Your task to perform on an android device: open the mobile data screen to see how much data has been used Image 0: 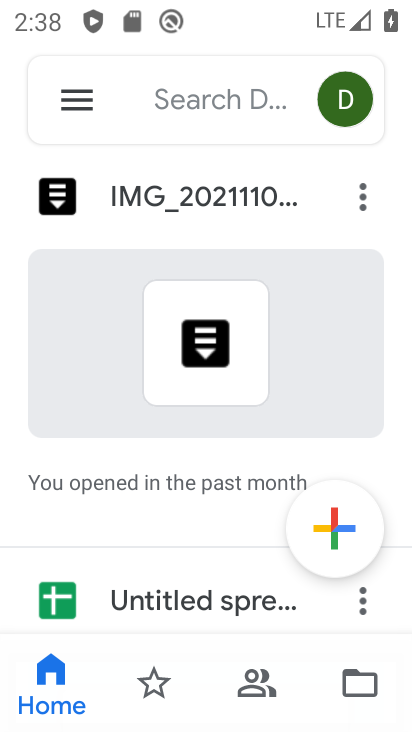
Step 0: press home button
Your task to perform on an android device: open the mobile data screen to see how much data has been used Image 1: 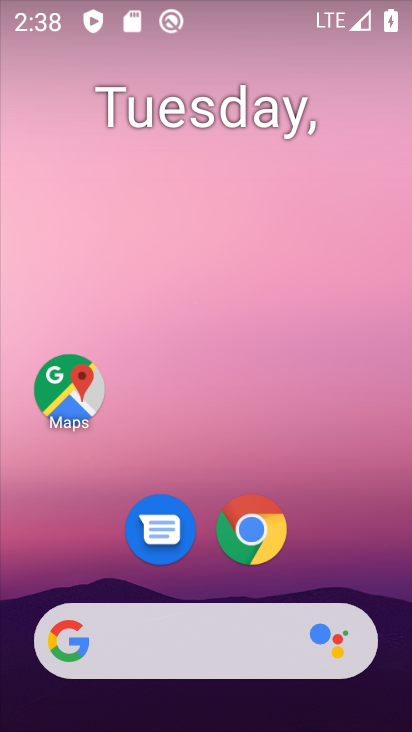
Step 1: drag from (396, 631) to (253, 155)
Your task to perform on an android device: open the mobile data screen to see how much data has been used Image 2: 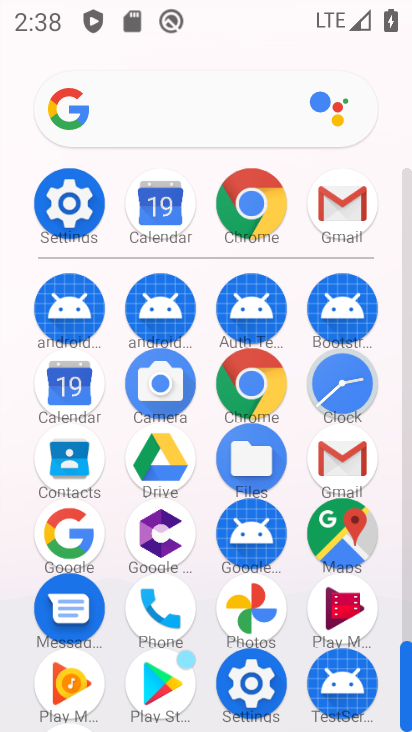
Step 2: click (82, 204)
Your task to perform on an android device: open the mobile data screen to see how much data has been used Image 3: 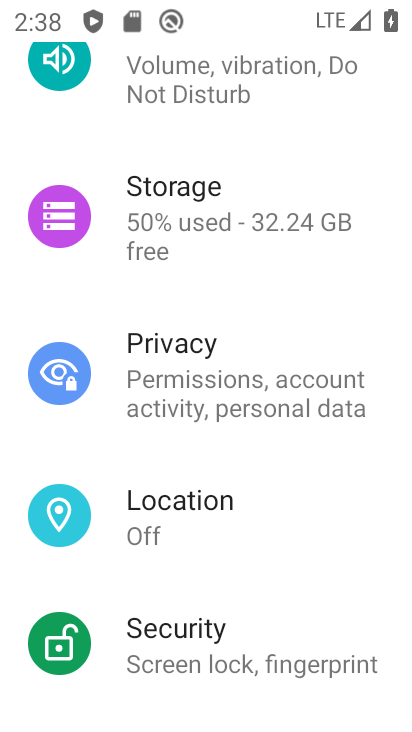
Step 3: drag from (216, 163) to (212, 546)
Your task to perform on an android device: open the mobile data screen to see how much data has been used Image 4: 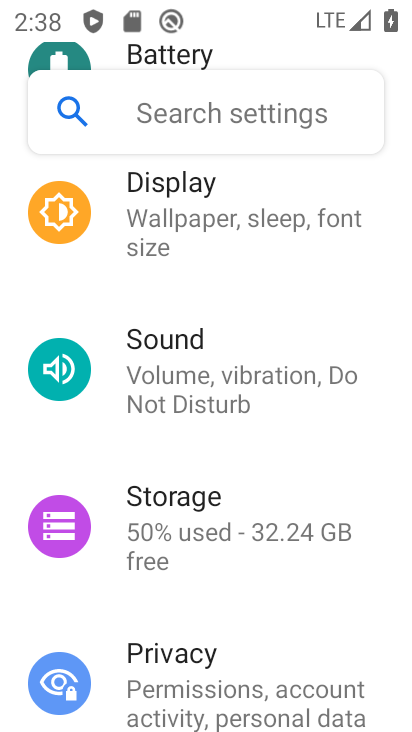
Step 4: drag from (150, 277) to (194, 592)
Your task to perform on an android device: open the mobile data screen to see how much data has been used Image 5: 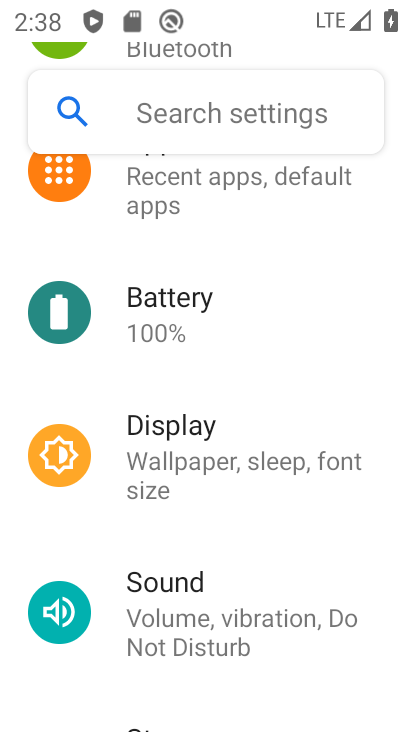
Step 5: drag from (153, 304) to (184, 662)
Your task to perform on an android device: open the mobile data screen to see how much data has been used Image 6: 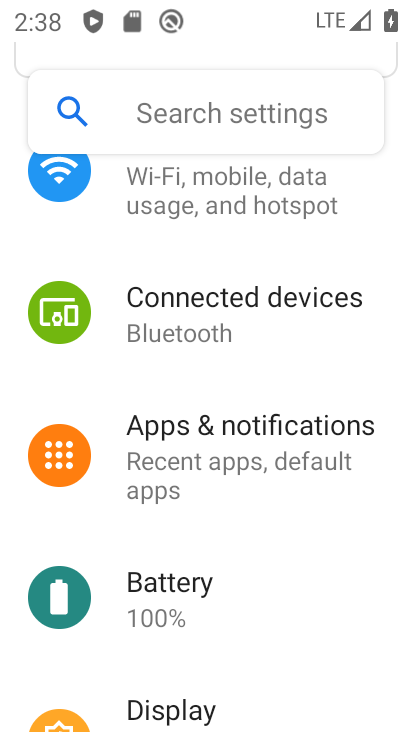
Step 6: drag from (186, 268) to (244, 604)
Your task to perform on an android device: open the mobile data screen to see how much data has been used Image 7: 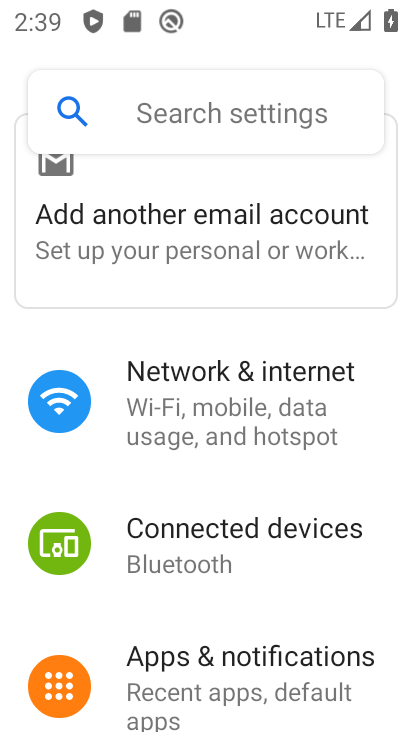
Step 7: click (185, 447)
Your task to perform on an android device: open the mobile data screen to see how much data has been used Image 8: 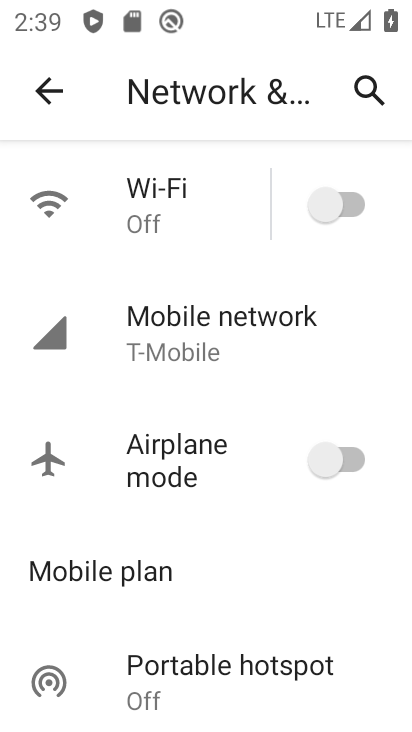
Step 8: click (258, 366)
Your task to perform on an android device: open the mobile data screen to see how much data has been used Image 9: 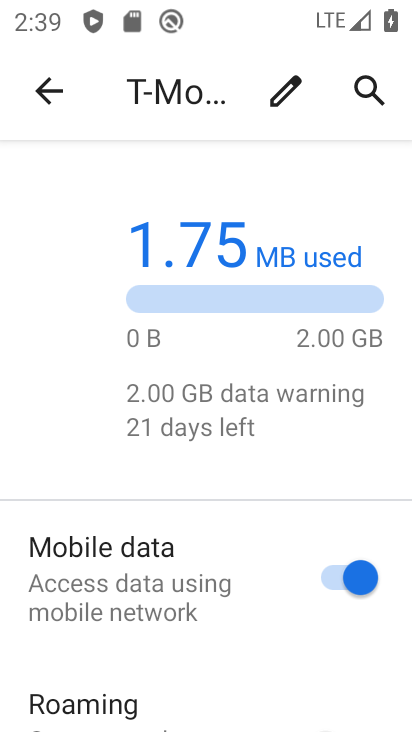
Step 9: drag from (186, 609) to (273, 167)
Your task to perform on an android device: open the mobile data screen to see how much data has been used Image 10: 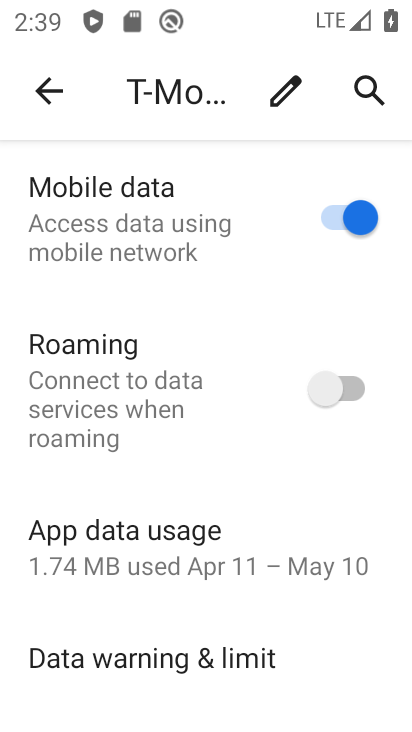
Step 10: click (188, 534)
Your task to perform on an android device: open the mobile data screen to see how much data has been used Image 11: 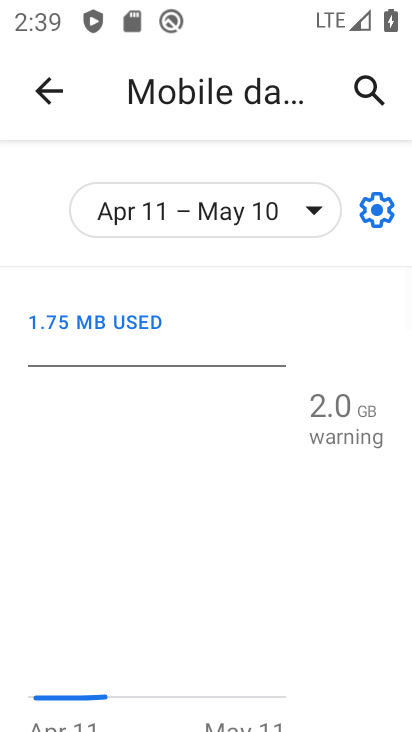
Step 11: task complete